Your task to perform on an android device: turn on sleep mode Image 0: 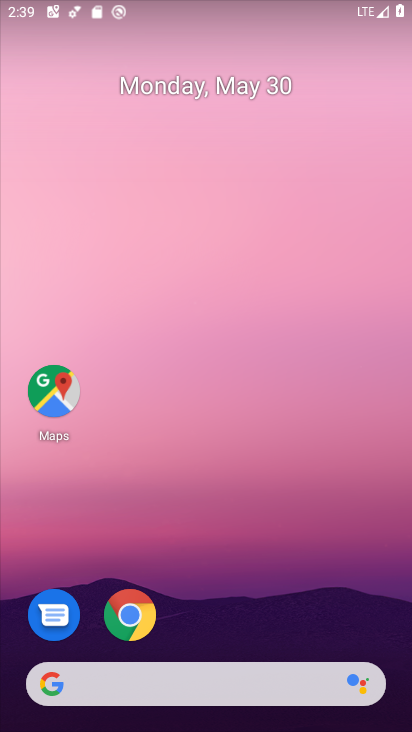
Step 0: drag from (278, 567) to (310, 68)
Your task to perform on an android device: turn on sleep mode Image 1: 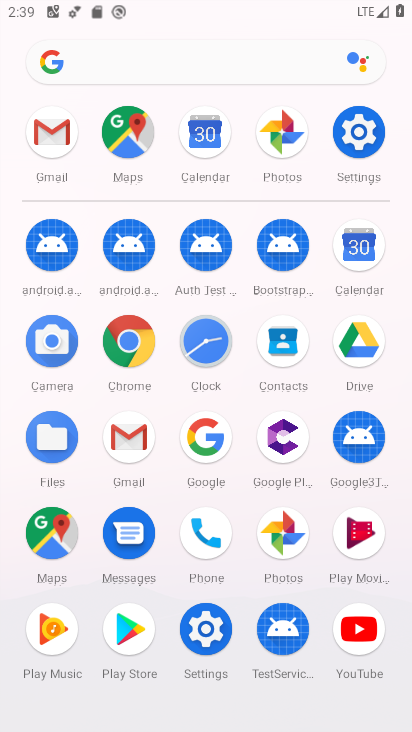
Step 1: click (353, 121)
Your task to perform on an android device: turn on sleep mode Image 2: 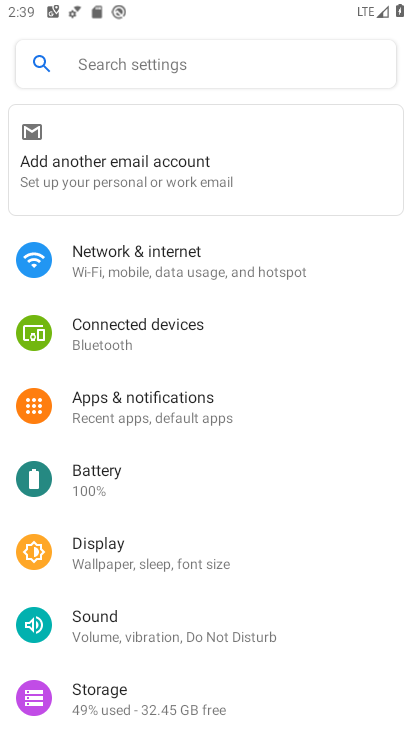
Step 2: click (197, 547)
Your task to perform on an android device: turn on sleep mode Image 3: 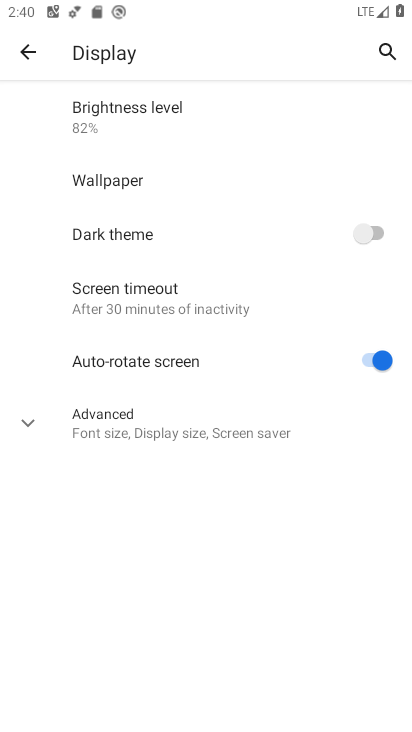
Step 3: click (28, 408)
Your task to perform on an android device: turn on sleep mode Image 4: 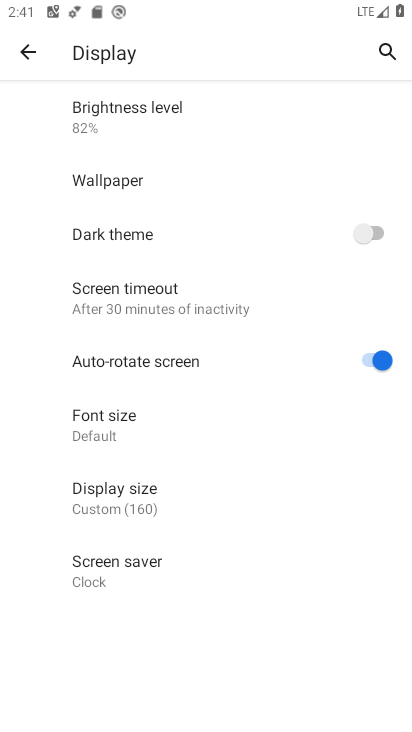
Step 4: task complete